Your task to perform on an android device: Open the calendar app, open the side menu, and click the "Day" option Image 0: 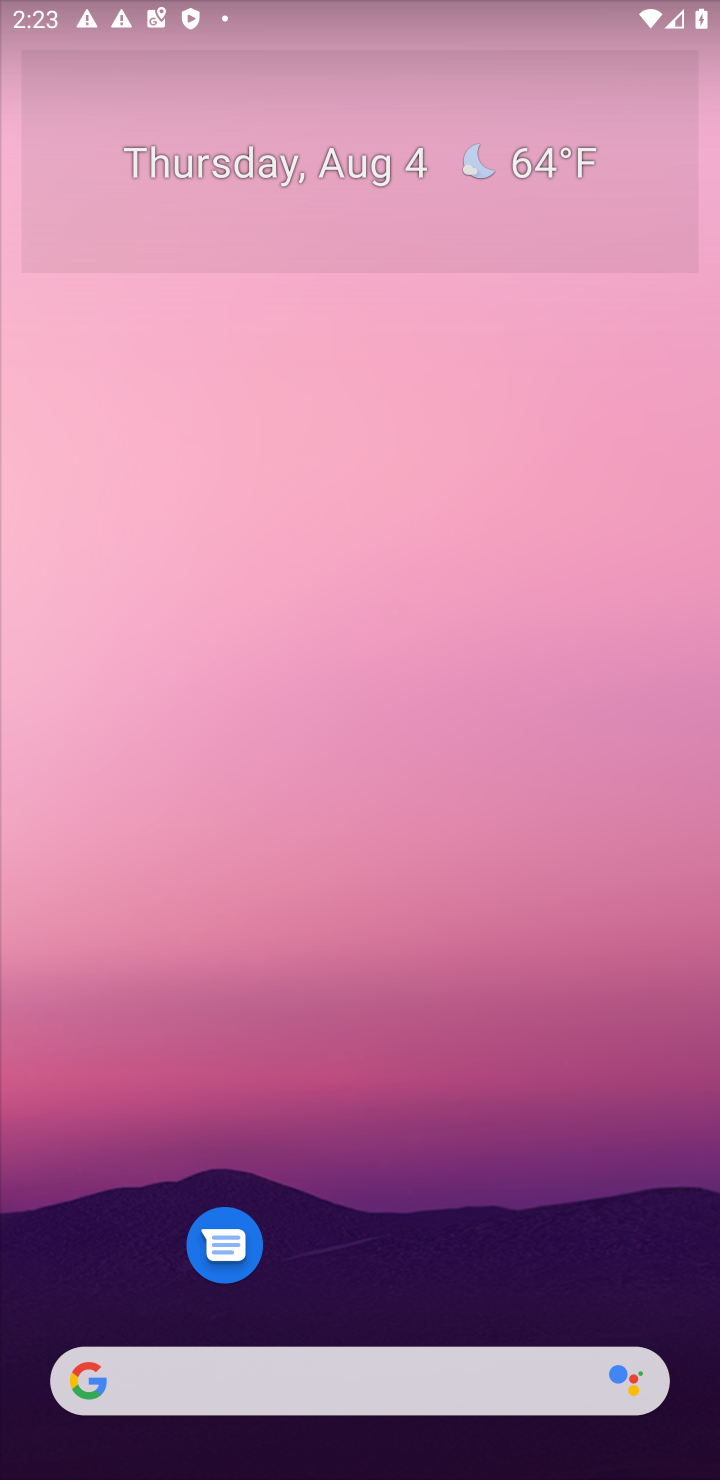
Step 0: drag from (420, 1182) to (339, 195)
Your task to perform on an android device: Open the calendar app, open the side menu, and click the "Day" option Image 1: 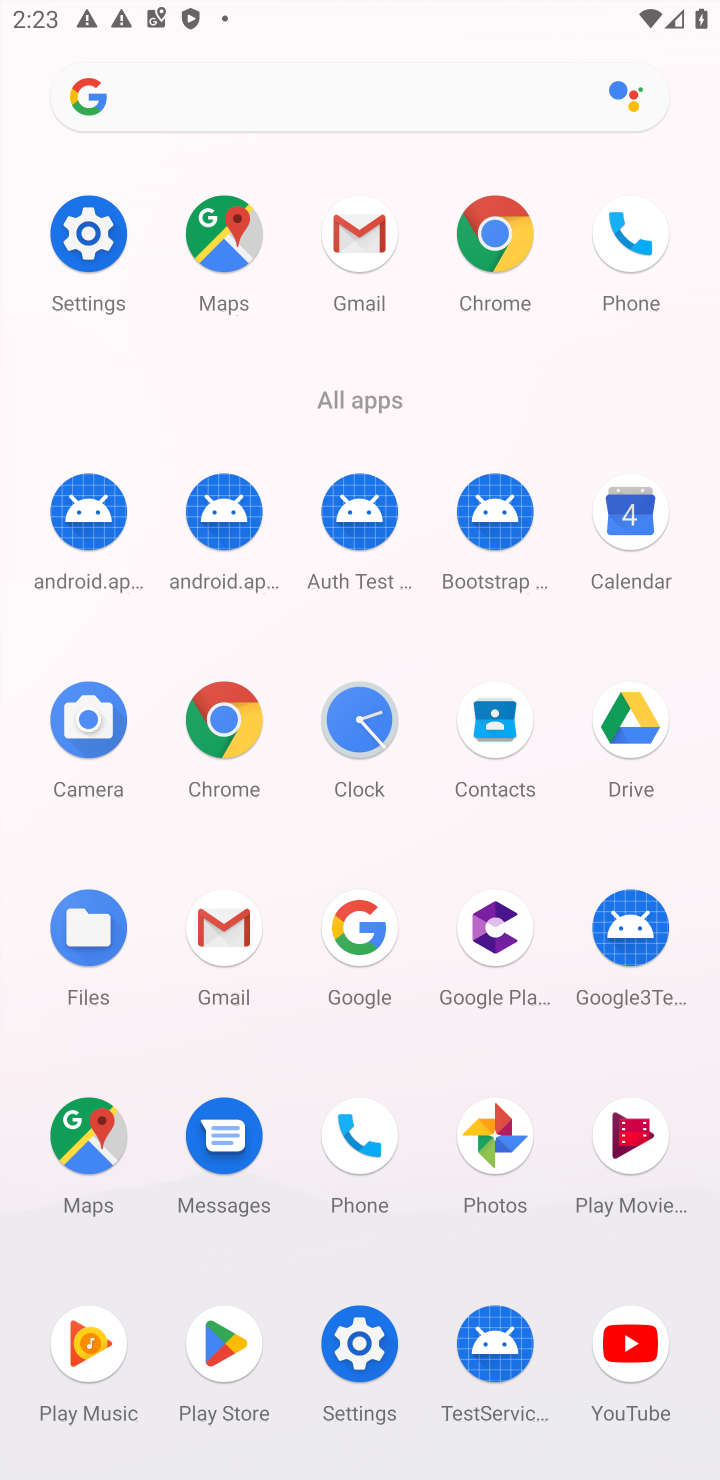
Step 1: click (633, 511)
Your task to perform on an android device: Open the calendar app, open the side menu, and click the "Day" option Image 2: 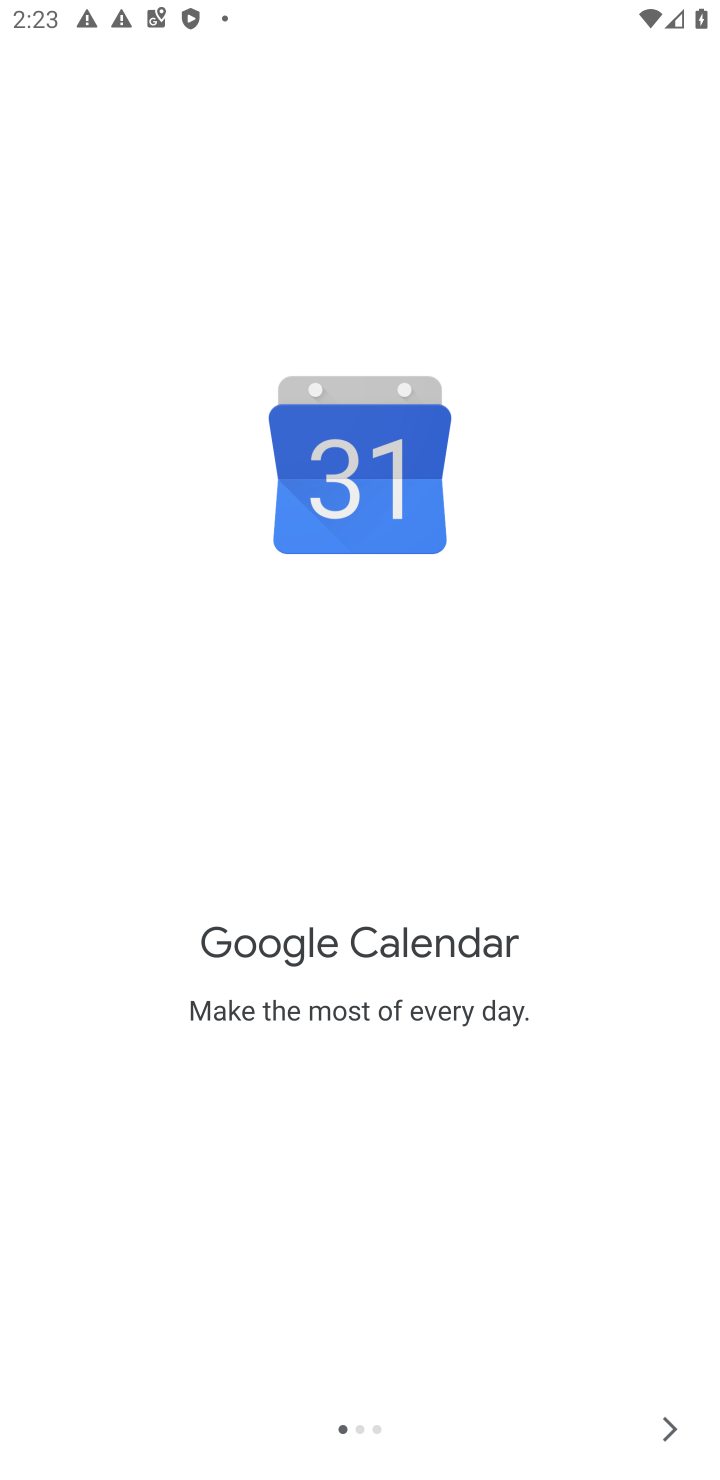
Step 2: click (676, 1398)
Your task to perform on an android device: Open the calendar app, open the side menu, and click the "Day" option Image 3: 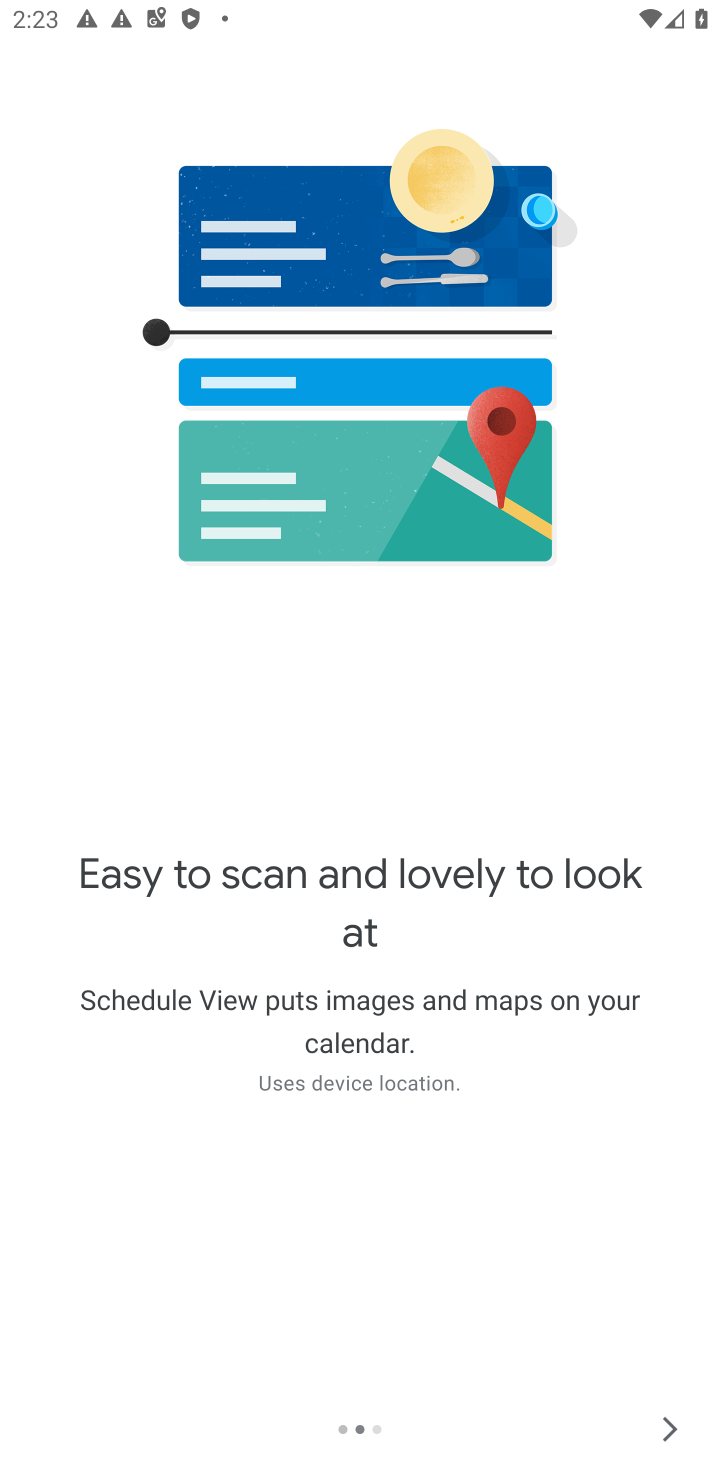
Step 3: click (672, 1419)
Your task to perform on an android device: Open the calendar app, open the side menu, and click the "Day" option Image 4: 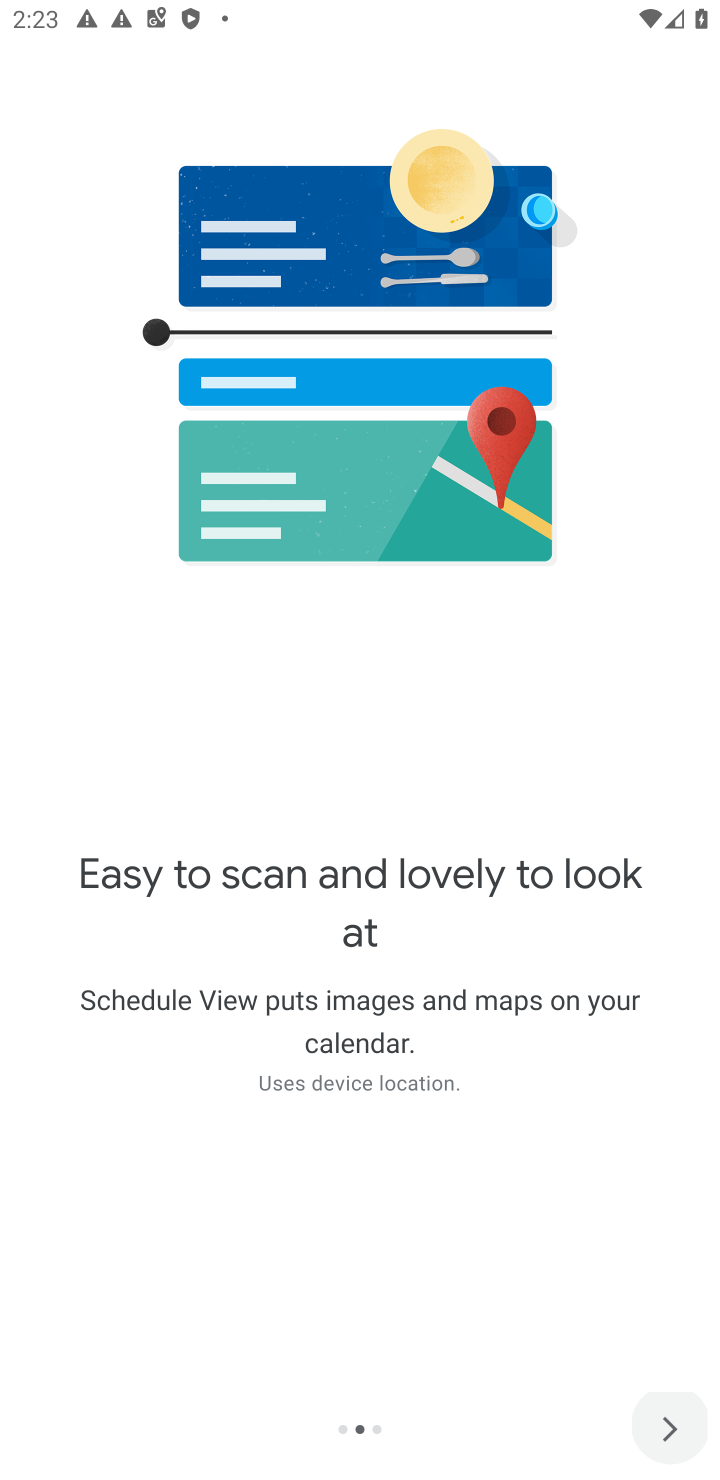
Step 4: click (672, 1419)
Your task to perform on an android device: Open the calendar app, open the side menu, and click the "Day" option Image 5: 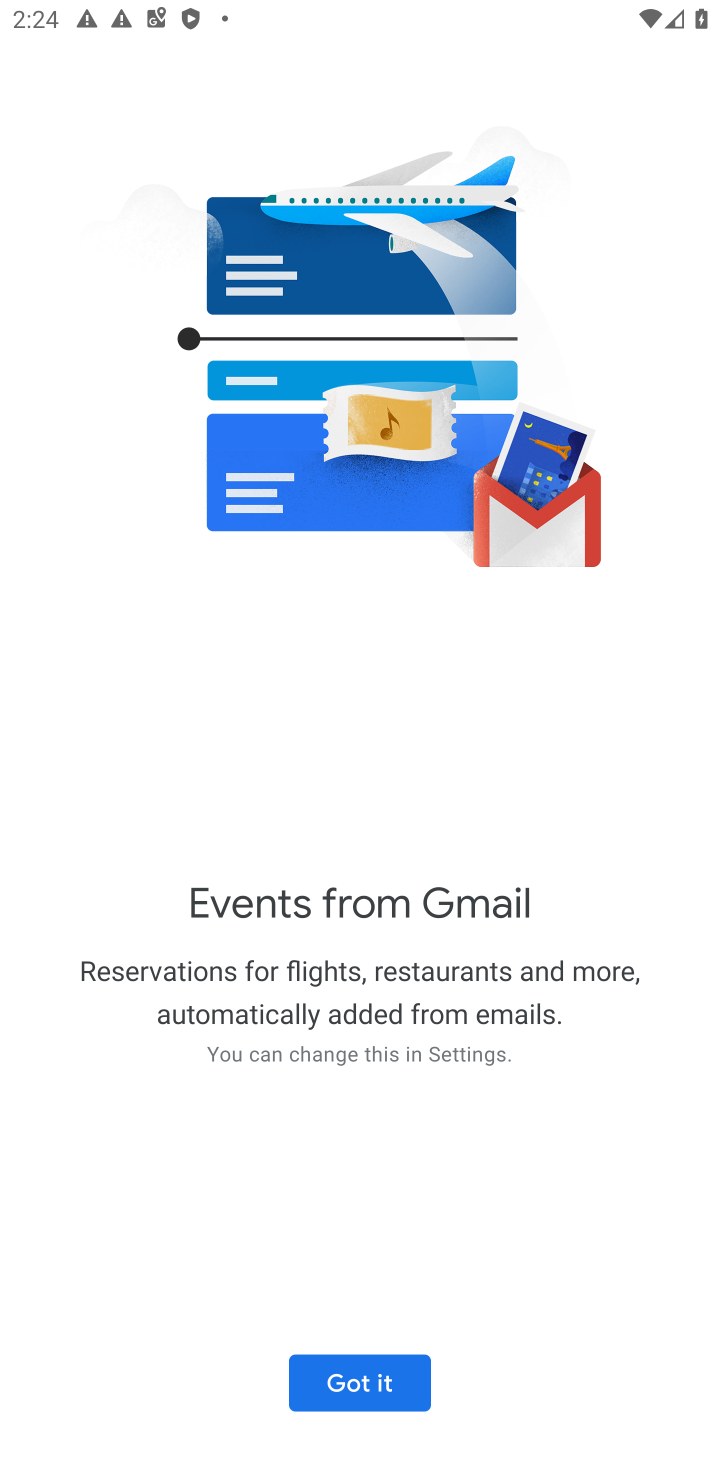
Step 5: click (347, 1363)
Your task to perform on an android device: Open the calendar app, open the side menu, and click the "Day" option Image 6: 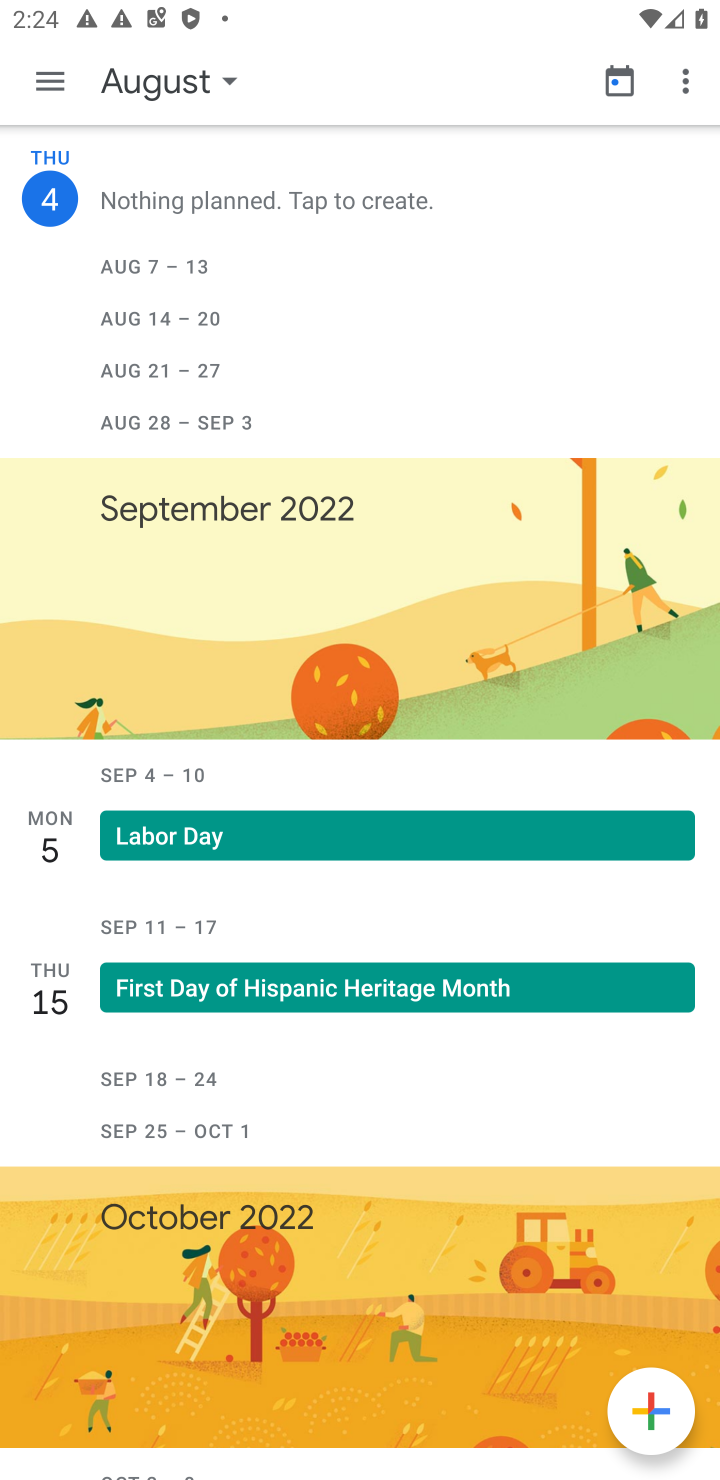
Step 6: click (35, 69)
Your task to perform on an android device: Open the calendar app, open the side menu, and click the "Day" option Image 7: 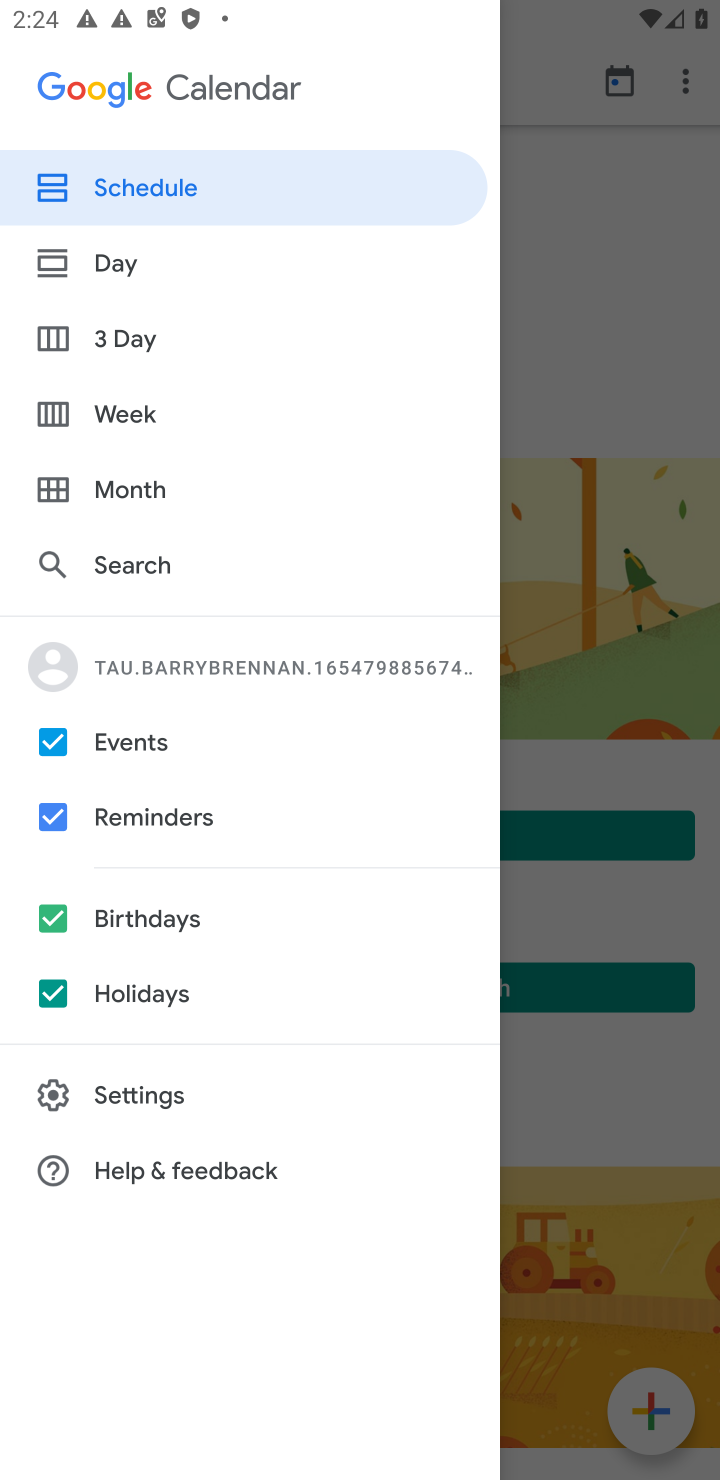
Step 7: click (140, 280)
Your task to perform on an android device: Open the calendar app, open the side menu, and click the "Day" option Image 8: 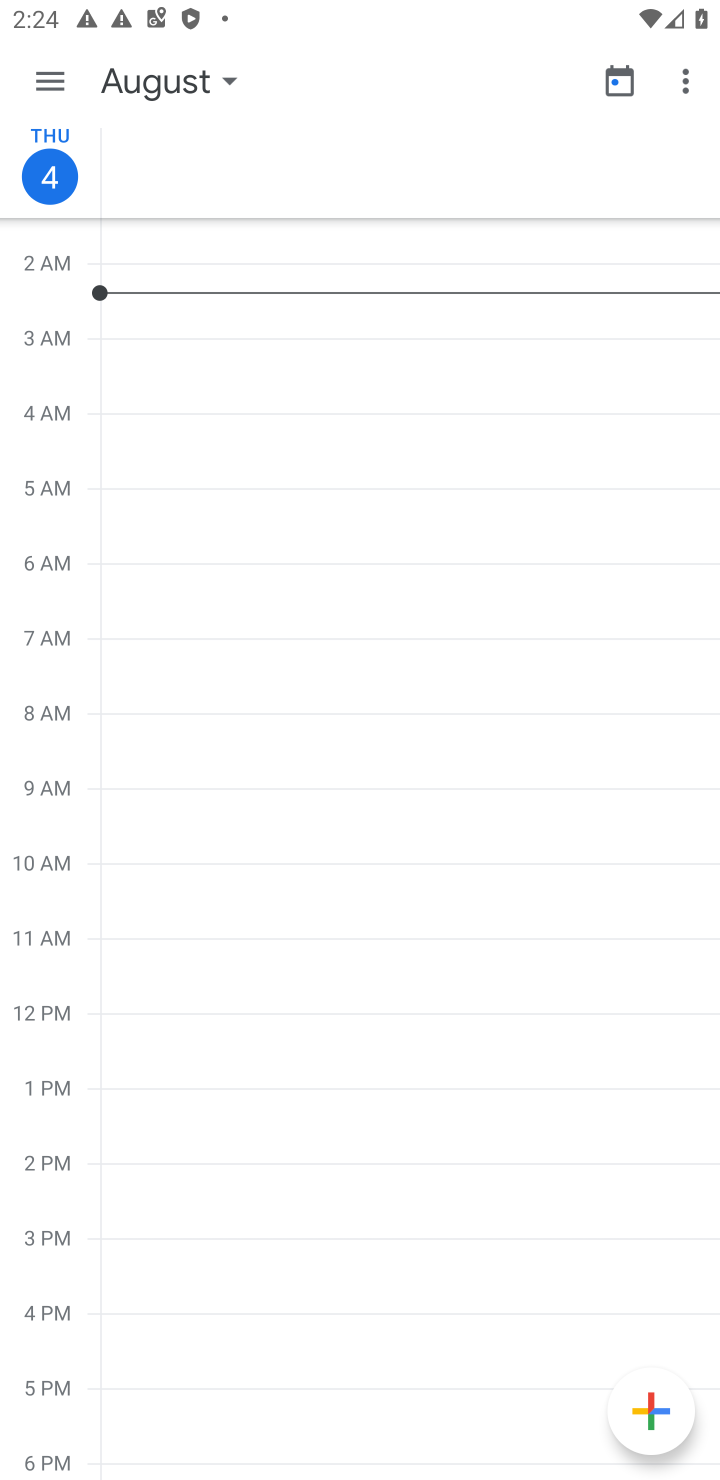
Step 8: task complete